Your task to perform on an android device: clear all cookies in the chrome app Image 0: 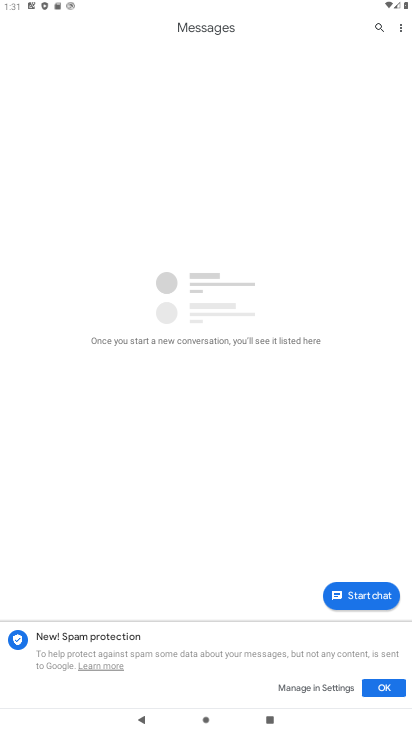
Step 0: press home button
Your task to perform on an android device: clear all cookies in the chrome app Image 1: 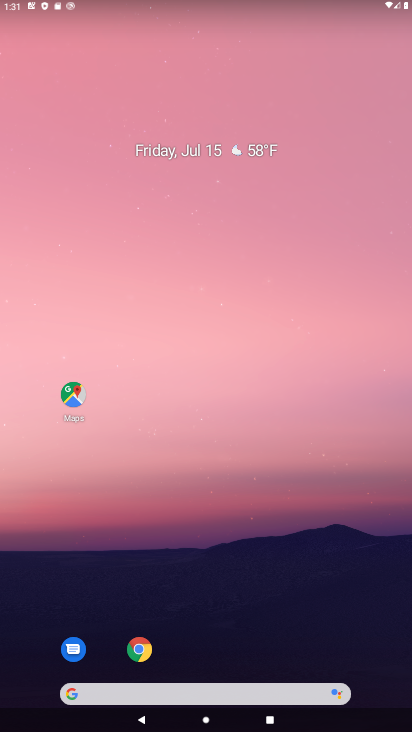
Step 1: drag from (283, 691) to (354, 127)
Your task to perform on an android device: clear all cookies in the chrome app Image 2: 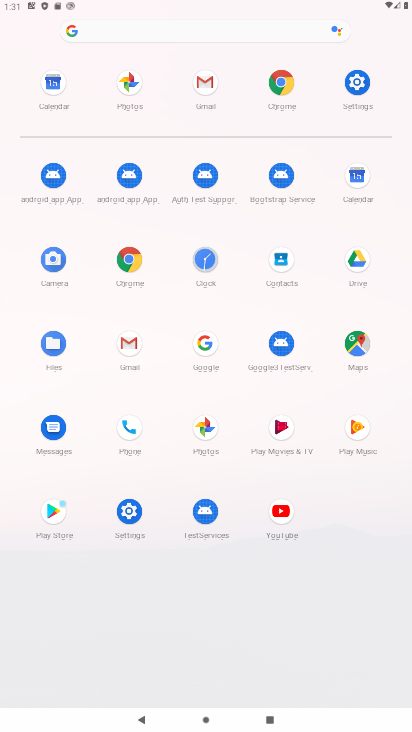
Step 2: click (130, 261)
Your task to perform on an android device: clear all cookies in the chrome app Image 3: 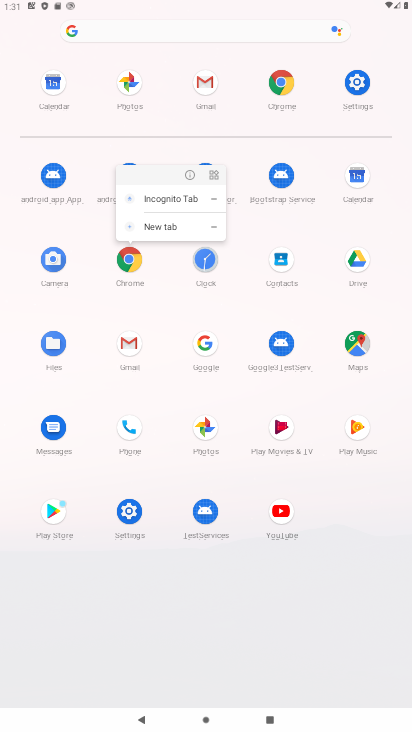
Step 3: click (130, 261)
Your task to perform on an android device: clear all cookies in the chrome app Image 4: 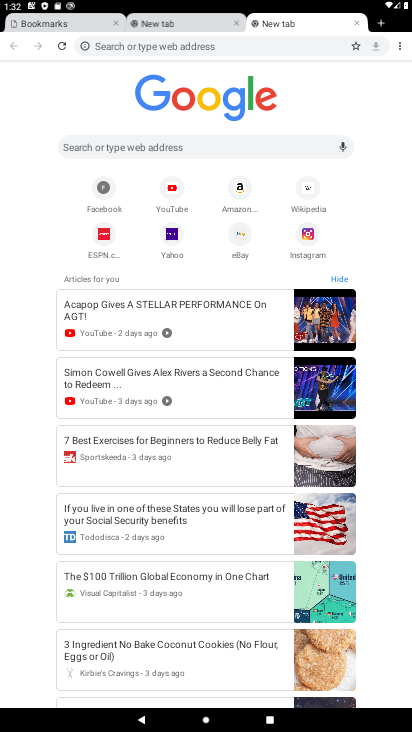
Step 4: click (397, 45)
Your task to perform on an android device: clear all cookies in the chrome app Image 5: 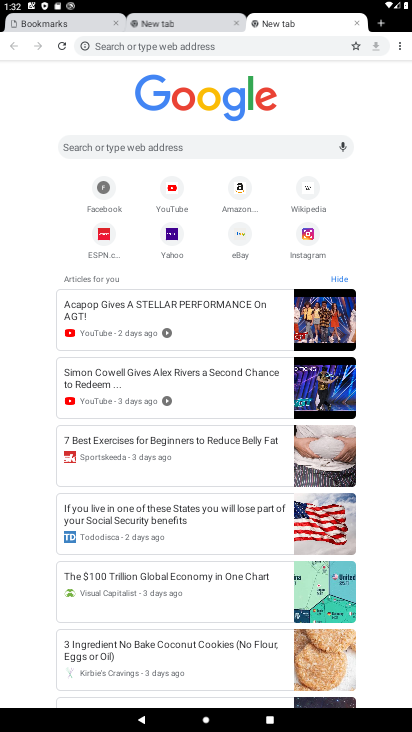
Step 5: drag from (397, 51) to (328, 214)
Your task to perform on an android device: clear all cookies in the chrome app Image 6: 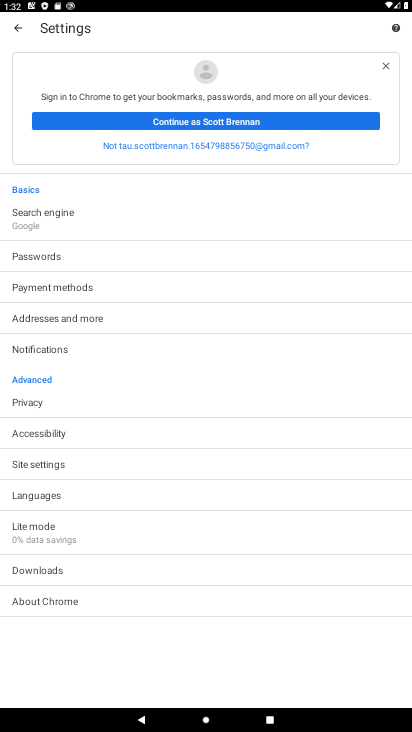
Step 6: click (46, 408)
Your task to perform on an android device: clear all cookies in the chrome app Image 7: 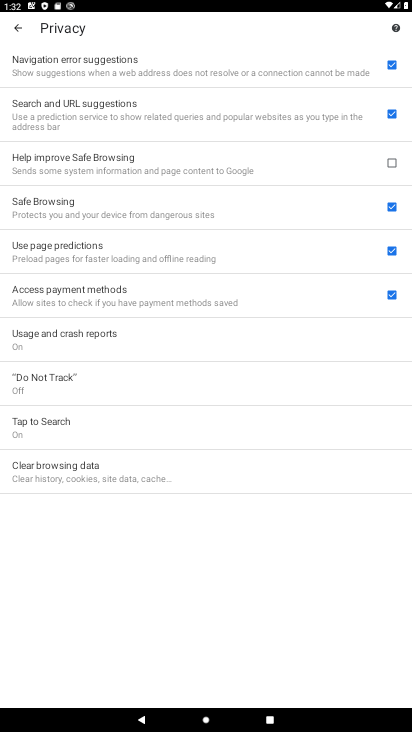
Step 7: click (176, 485)
Your task to perform on an android device: clear all cookies in the chrome app Image 8: 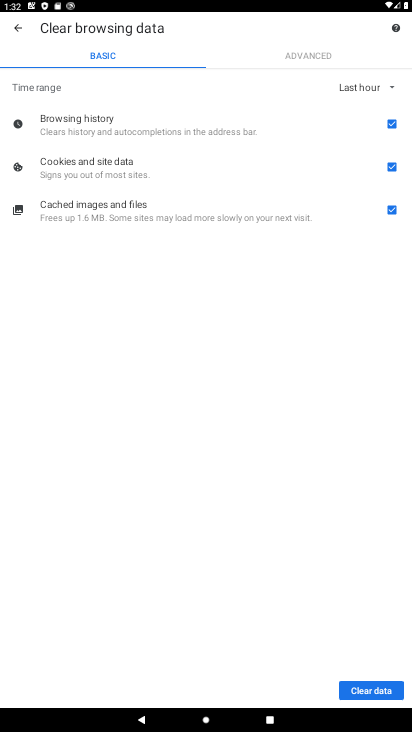
Step 8: click (368, 693)
Your task to perform on an android device: clear all cookies in the chrome app Image 9: 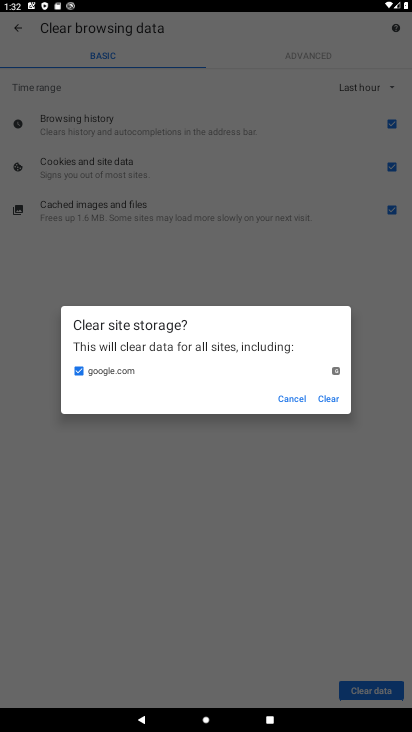
Step 9: click (326, 396)
Your task to perform on an android device: clear all cookies in the chrome app Image 10: 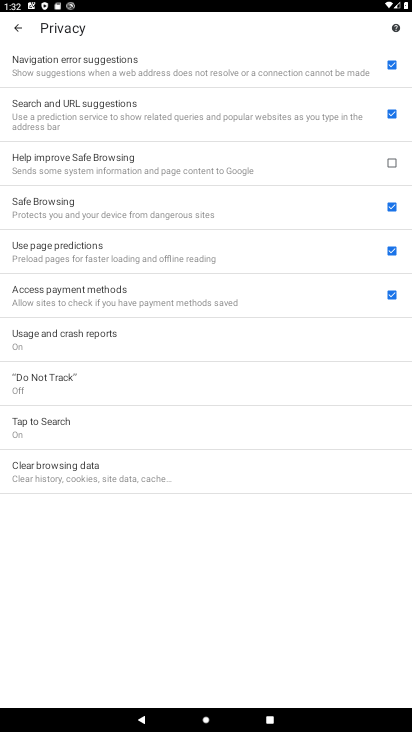
Step 10: task complete